Your task to perform on an android device: change alarm snooze length Image 0: 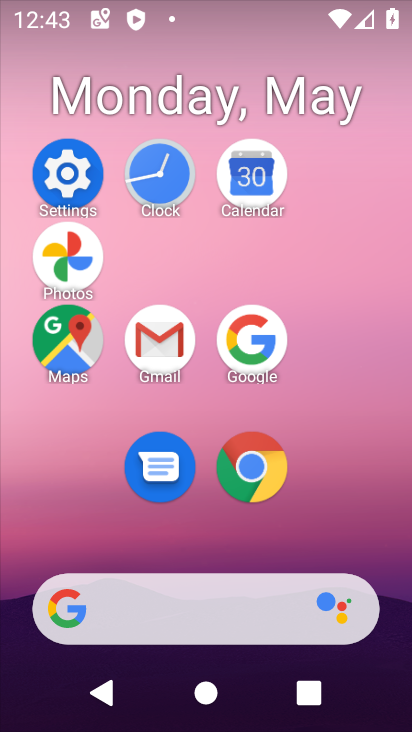
Step 0: click (170, 169)
Your task to perform on an android device: change alarm snooze length Image 1: 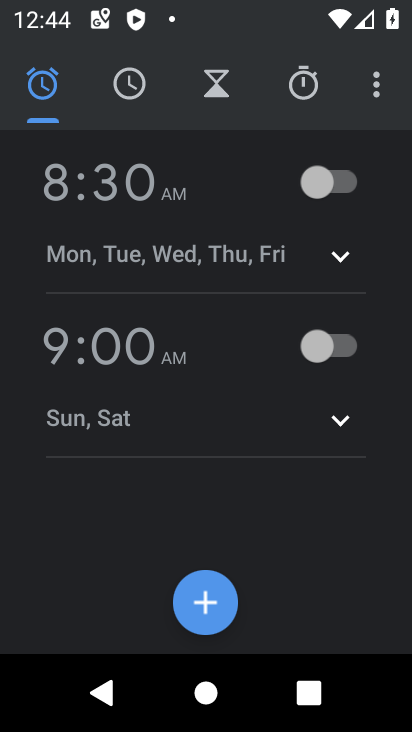
Step 1: click (389, 101)
Your task to perform on an android device: change alarm snooze length Image 2: 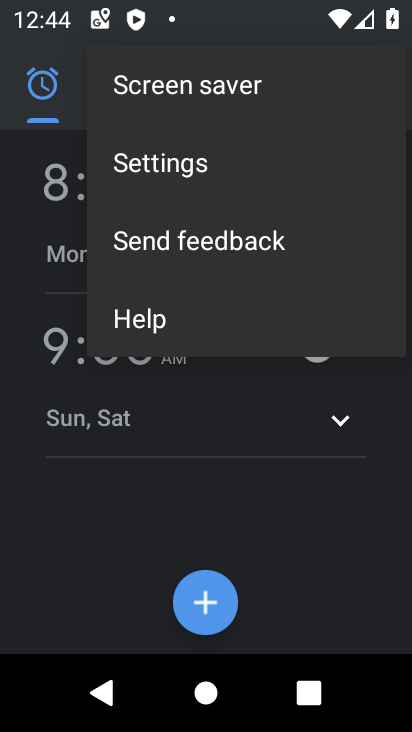
Step 2: click (252, 151)
Your task to perform on an android device: change alarm snooze length Image 3: 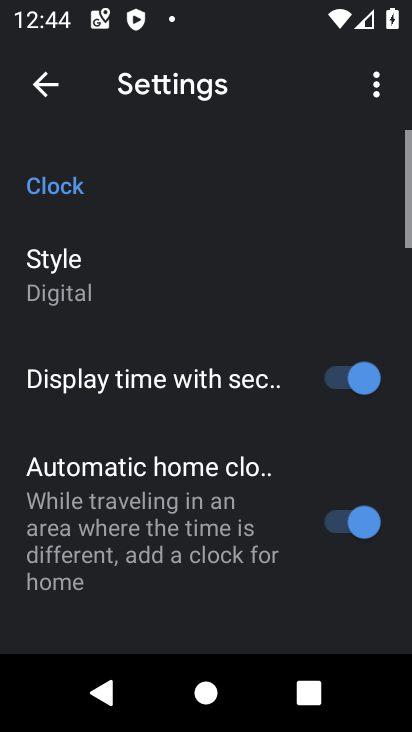
Step 3: drag from (243, 516) to (250, 152)
Your task to perform on an android device: change alarm snooze length Image 4: 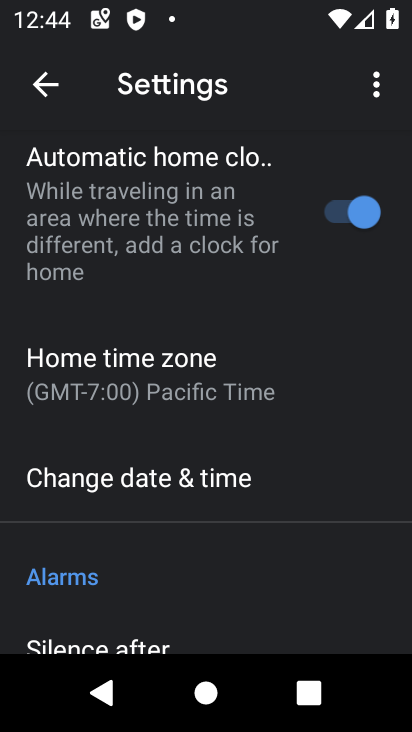
Step 4: drag from (214, 578) to (183, 191)
Your task to perform on an android device: change alarm snooze length Image 5: 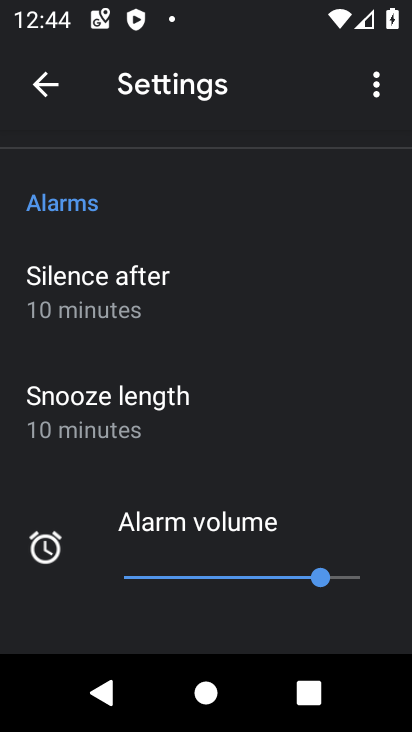
Step 5: click (161, 426)
Your task to perform on an android device: change alarm snooze length Image 6: 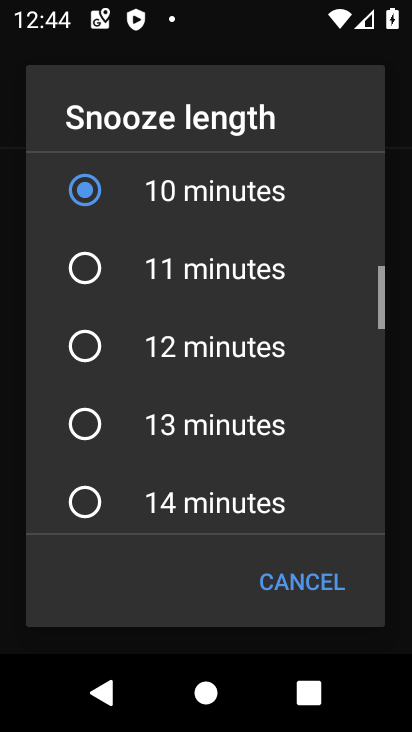
Step 6: click (142, 286)
Your task to perform on an android device: change alarm snooze length Image 7: 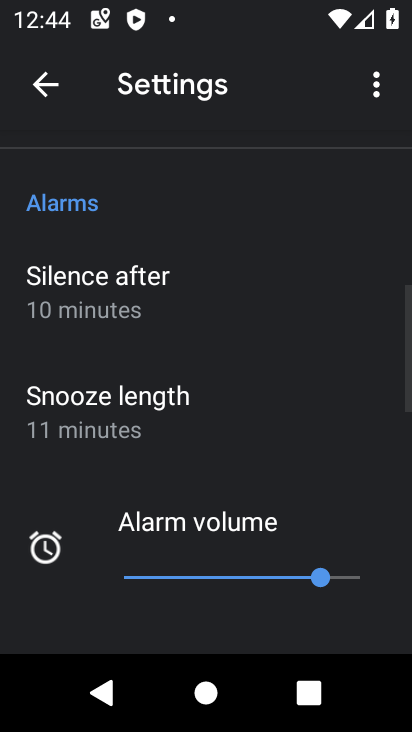
Step 7: task complete